Your task to perform on an android device: turn off wifi Image 0: 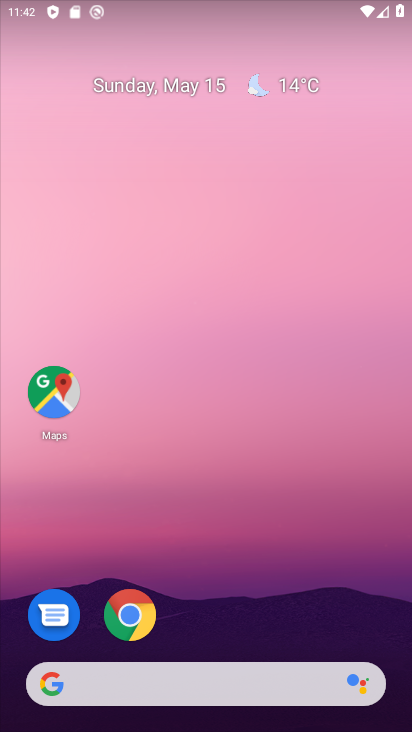
Step 0: drag from (315, 585) to (326, 0)
Your task to perform on an android device: turn off wifi Image 1: 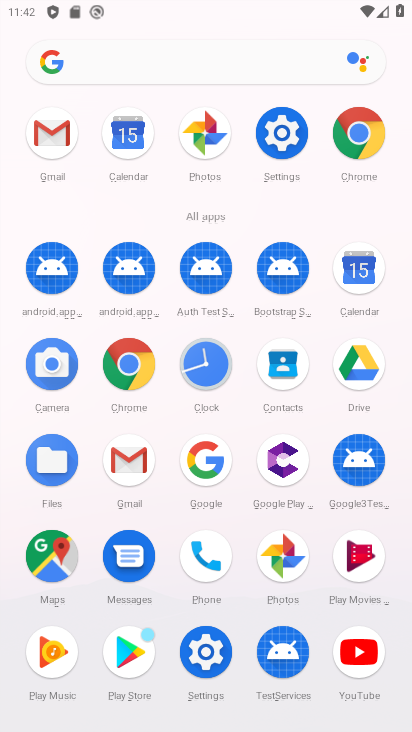
Step 1: click (277, 135)
Your task to perform on an android device: turn off wifi Image 2: 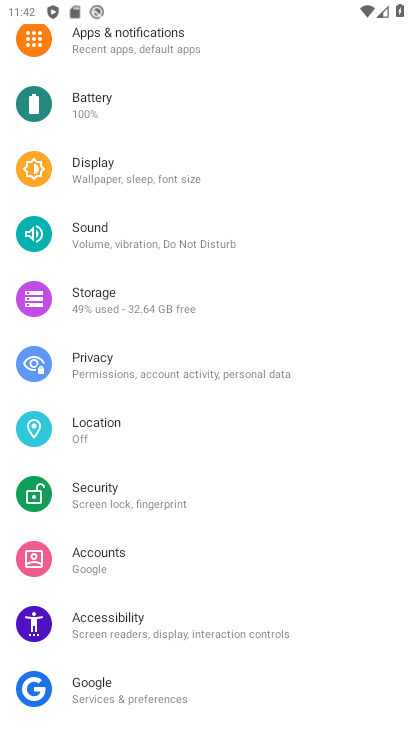
Step 2: drag from (162, 105) to (152, 571)
Your task to perform on an android device: turn off wifi Image 3: 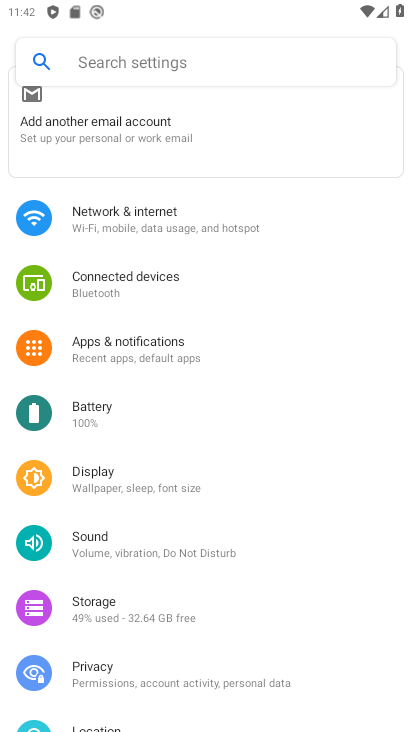
Step 3: click (145, 220)
Your task to perform on an android device: turn off wifi Image 4: 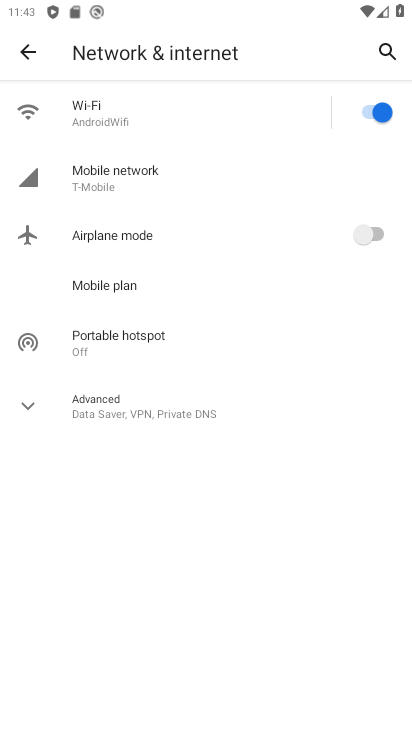
Step 4: click (385, 111)
Your task to perform on an android device: turn off wifi Image 5: 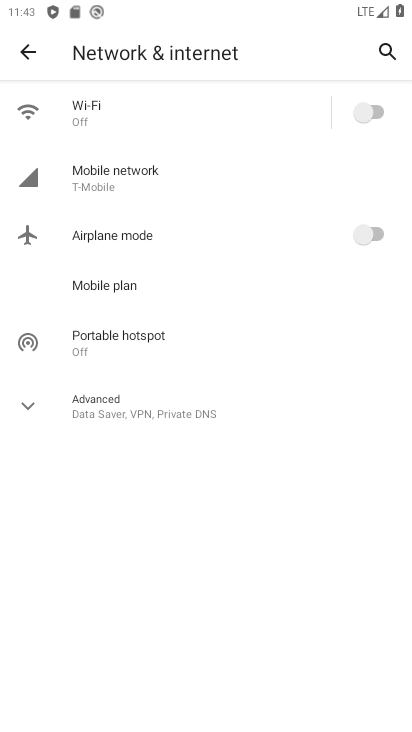
Step 5: task complete